Your task to perform on an android device: Go to privacy settings Image 0: 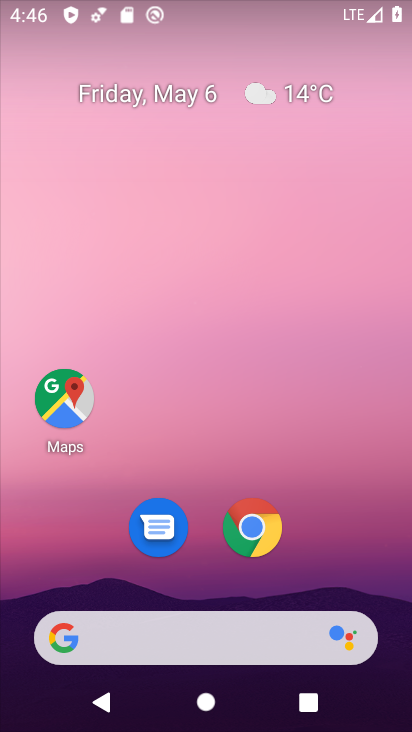
Step 0: drag from (224, 725) to (217, 97)
Your task to perform on an android device: Go to privacy settings Image 1: 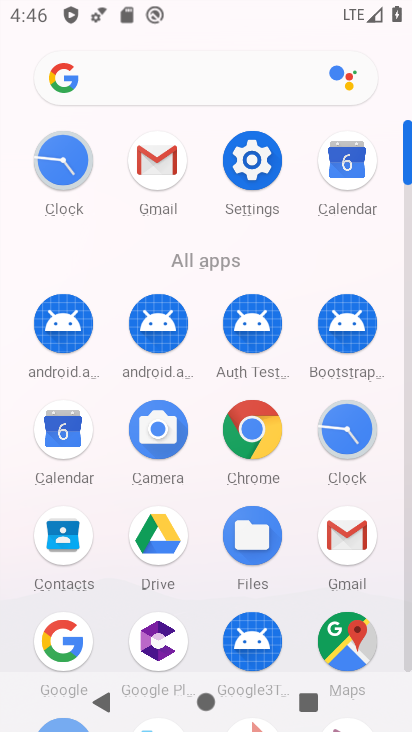
Step 1: click (247, 162)
Your task to perform on an android device: Go to privacy settings Image 2: 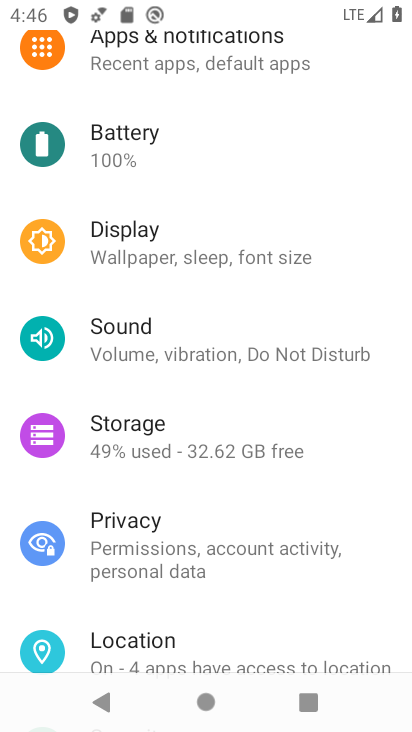
Step 2: click (127, 526)
Your task to perform on an android device: Go to privacy settings Image 3: 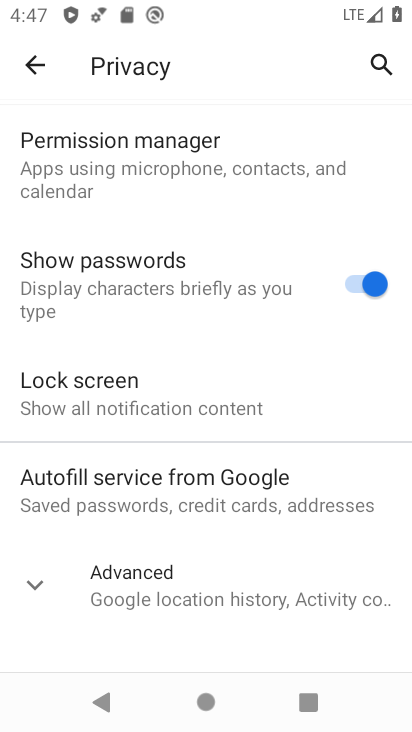
Step 3: task complete